Your task to perform on an android device: Open the Play Movies app and select the watchlist tab. Image 0: 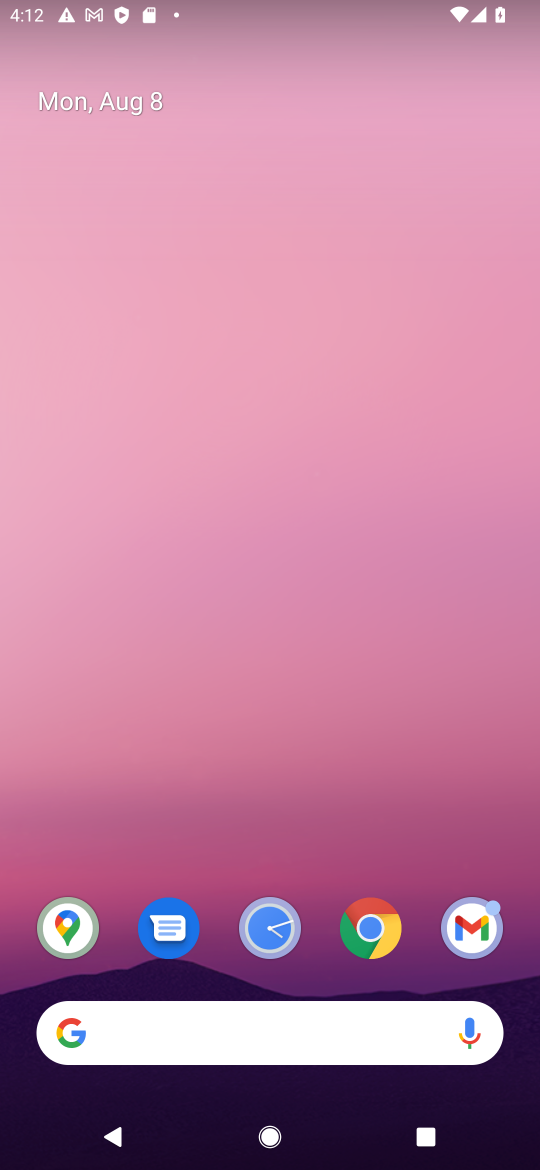
Step 0: drag from (426, 899) to (362, 43)
Your task to perform on an android device: Open the Play Movies app and select the watchlist tab. Image 1: 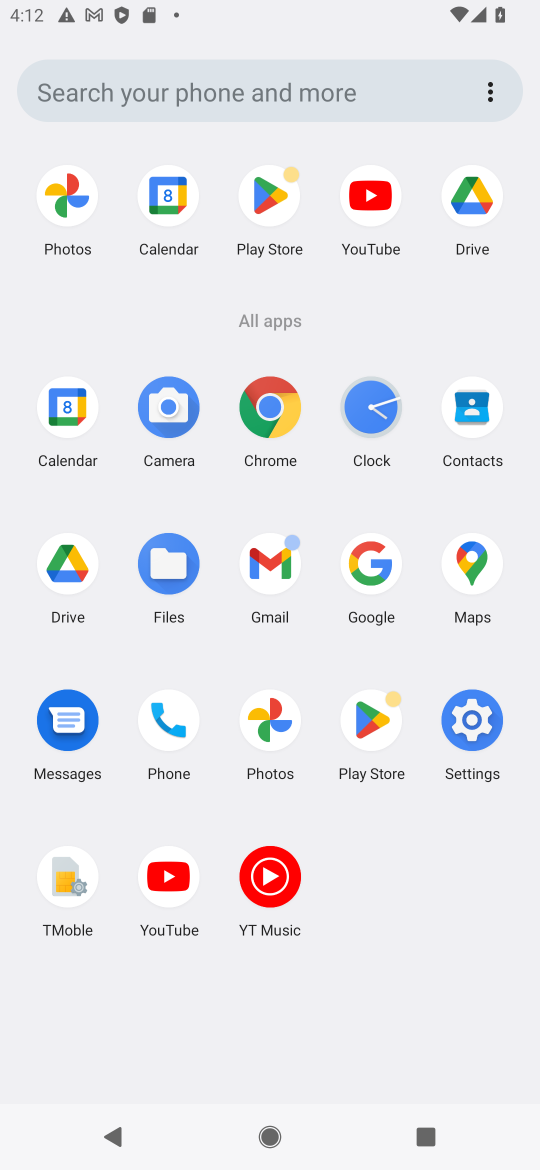
Step 1: task complete